Your task to perform on an android device: See recent photos Image 0: 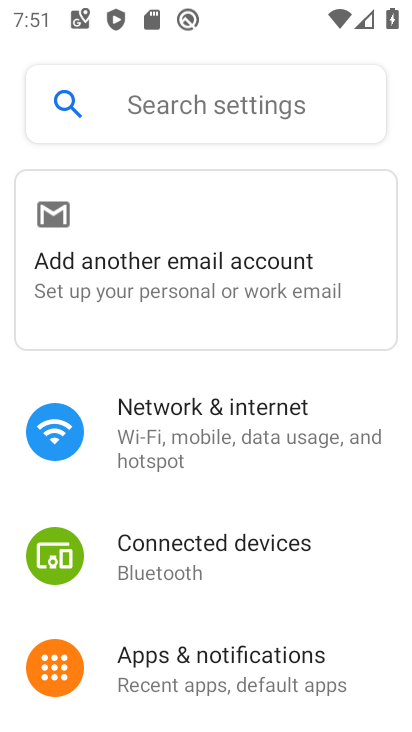
Step 0: press home button
Your task to perform on an android device: See recent photos Image 1: 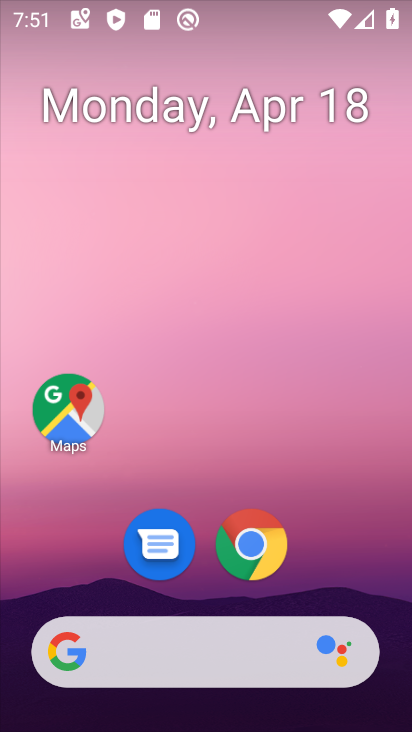
Step 1: drag from (368, 588) to (385, 45)
Your task to perform on an android device: See recent photos Image 2: 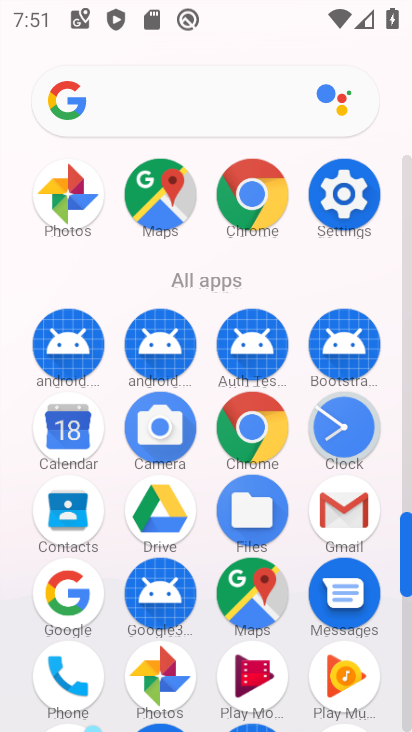
Step 2: click (63, 196)
Your task to perform on an android device: See recent photos Image 3: 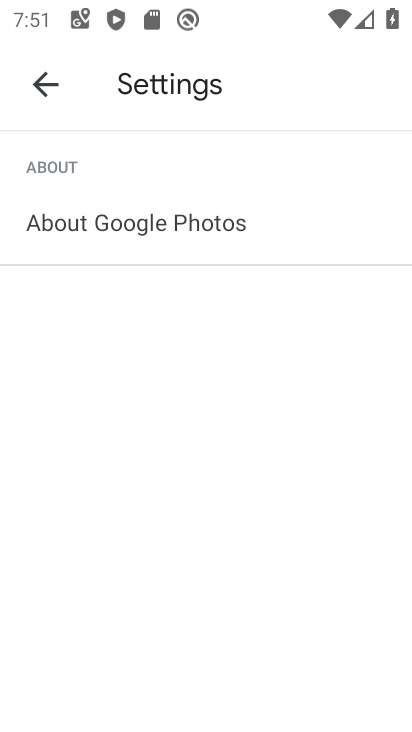
Step 3: click (38, 84)
Your task to perform on an android device: See recent photos Image 4: 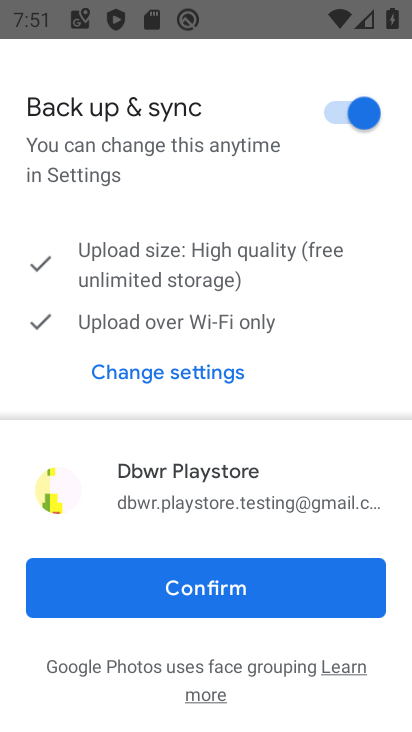
Step 4: click (200, 580)
Your task to perform on an android device: See recent photos Image 5: 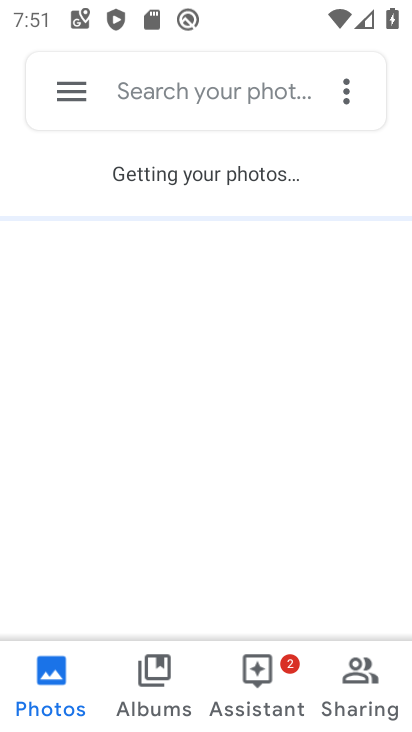
Step 5: click (65, 91)
Your task to perform on an android device: See recent photos Image 6: 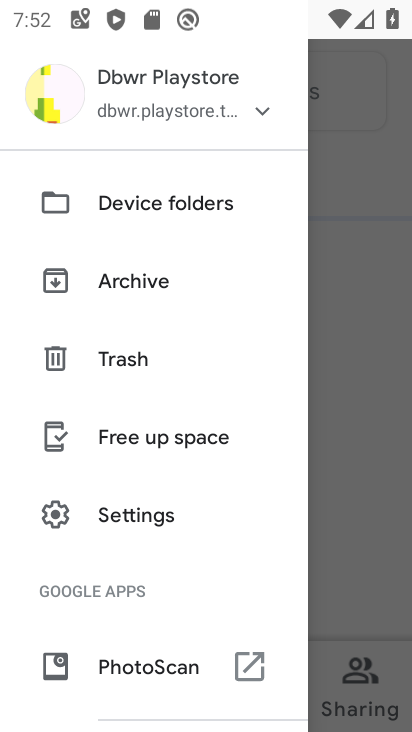
Step 6: drag from (205, 539) to (209, 271)
Your task to perform on an android device: See recent photos Image 7: 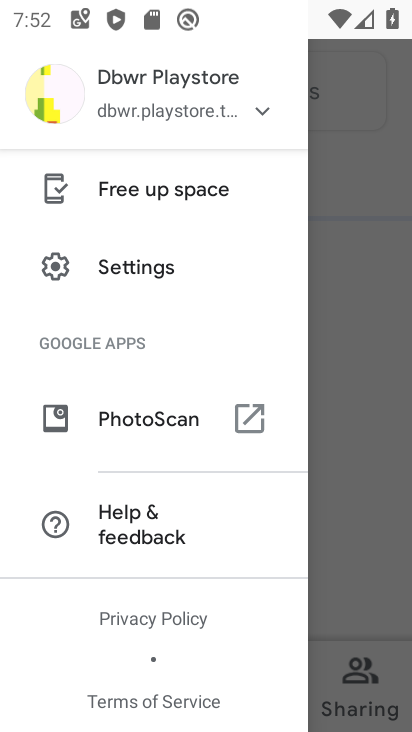
Step 7: click (358, 577)
Your task to perform on an android device: See recent photos Image 8: 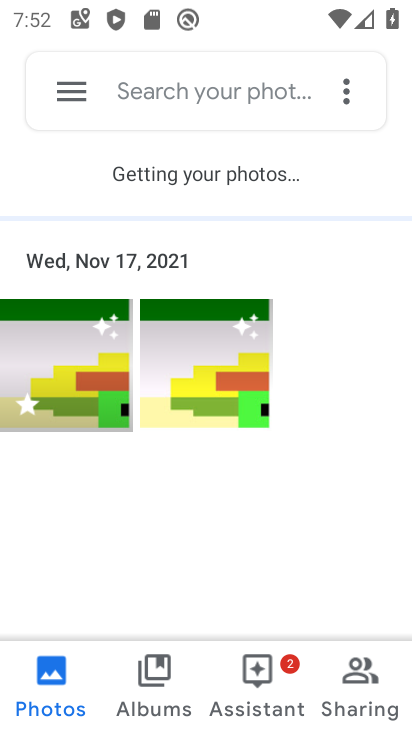
Step 8: task complete